Your task to perform on an android device: remove spam from my inbox in the gmail app Image 0: 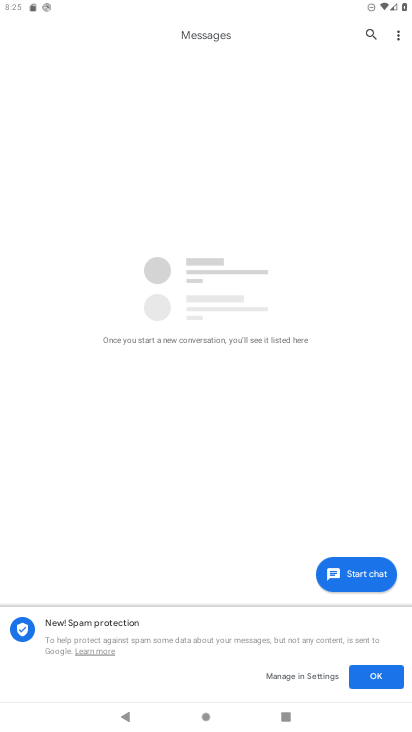
Step 0: press home button
Your task to perform on an android device: remove spam from my inbox in the gmail app Image 1: 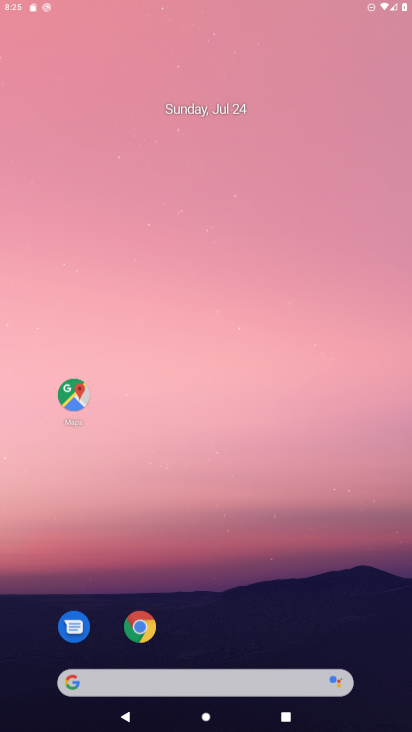
Step 1: drag from (369, 658) to (304, 45)
Your task to perform on an android device: remove spam from my inbox in the gmail app Image 2: 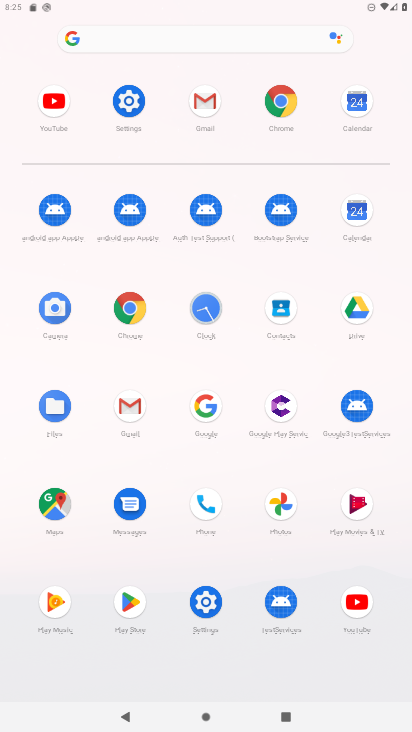
Step 2: click (122, 421)
Your task to perform on an android device: remove spam from my inbox in the gmail app Image 3: 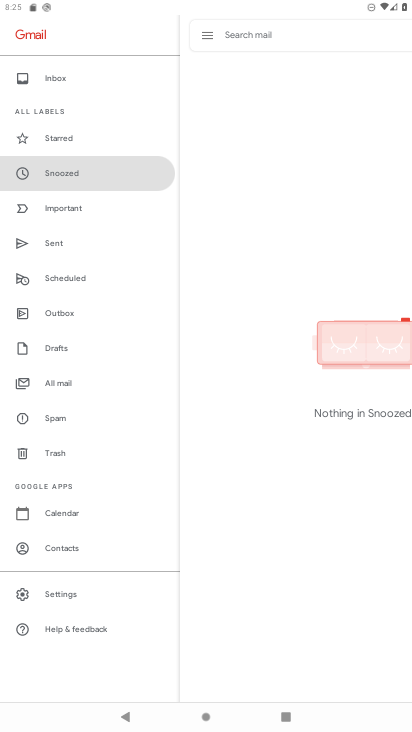
Step 3: click (81, 74)
Your task to perform on an android device: remove spam from my inbox in the gmail app Image 4: 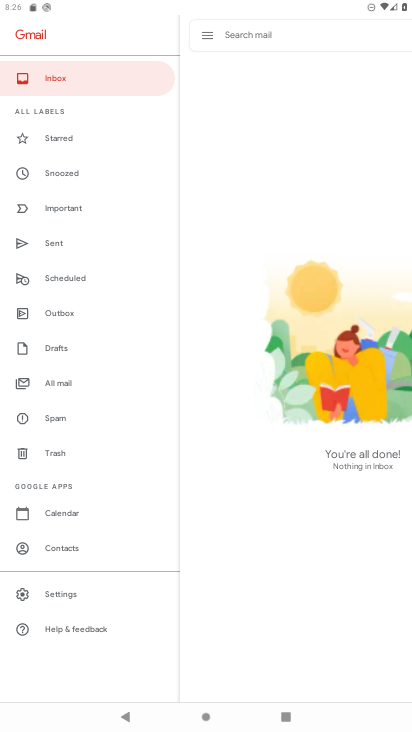
Step 4: task complete